Your task to perform on an android device: move a message to another label in the gmail app Image 0: 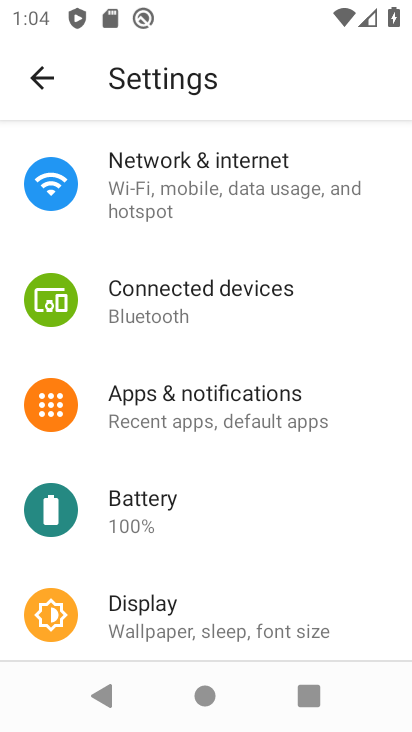
Step 0: press back button
Your task to perform on an android device: move a message to another label in the gmail app Image 1: 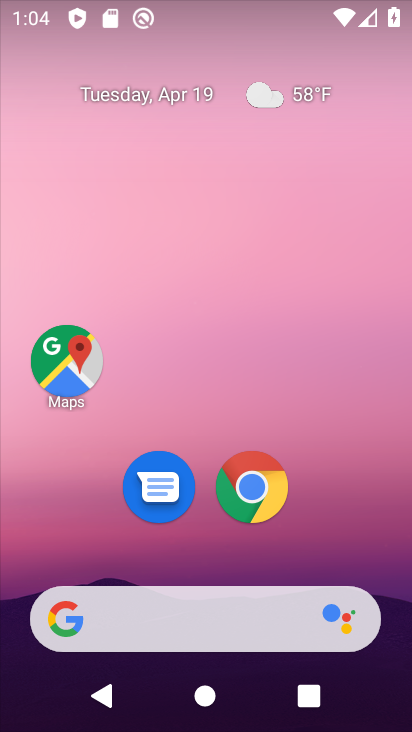
Step 1: drag from (205, 719) to (208, 114)
Your task to perform on an android device: move a message to another label in the gmail app Image 2: 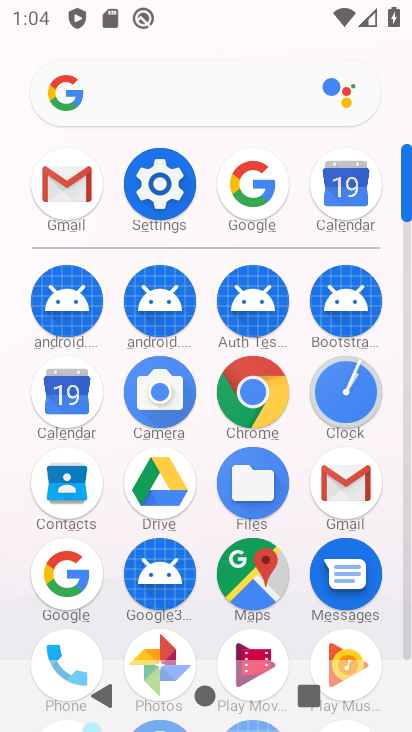
Step 2: click (339, 486)
Your task to perform on an android device: move a message to another label in the gmail app Image 3: 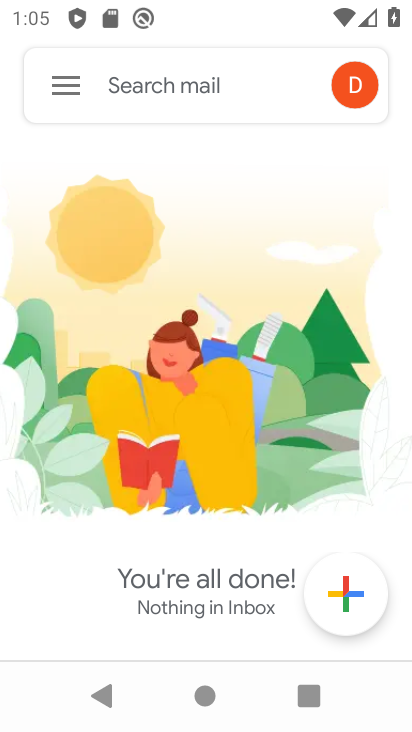
Step 3: task complete